Your task to perform on an android device: Open Wikipedia Image 0: 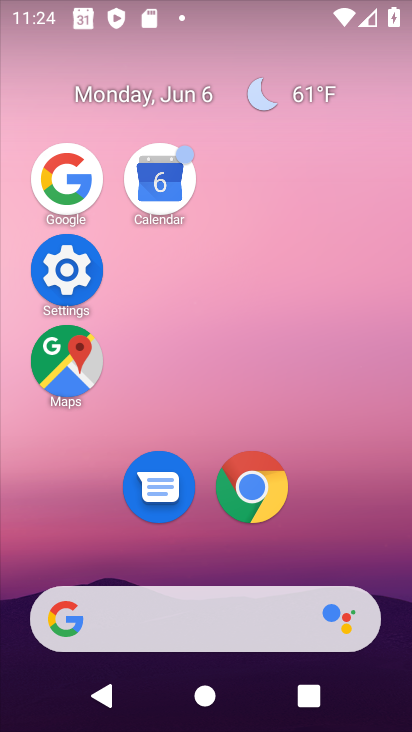
Step 0: click (254, 489)
Your task to perform on an android device: Open Wikipedia Image 1: 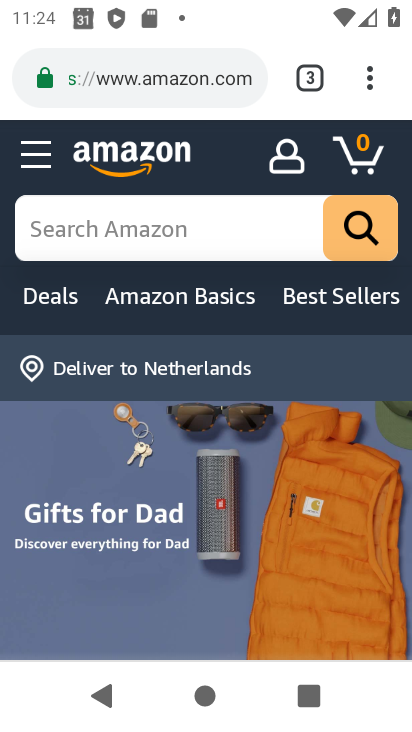
Step 1: click (323, 76)
Your task to perform on an android device: Open Wikipedia Image 2: 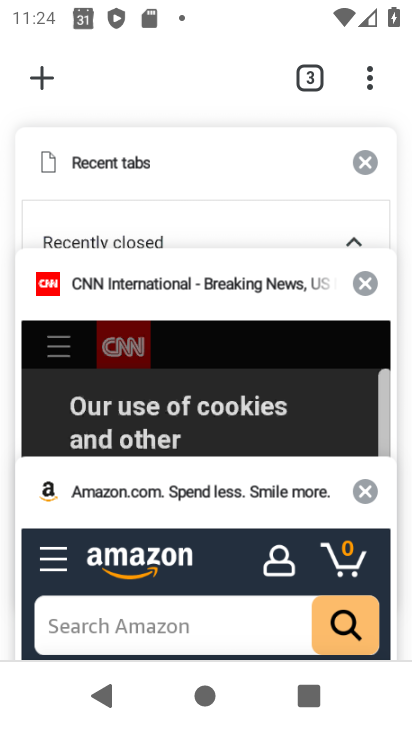
Step 2: click (48, 85)
Your task to perform on an android device: Open Wikipedia Image 3: 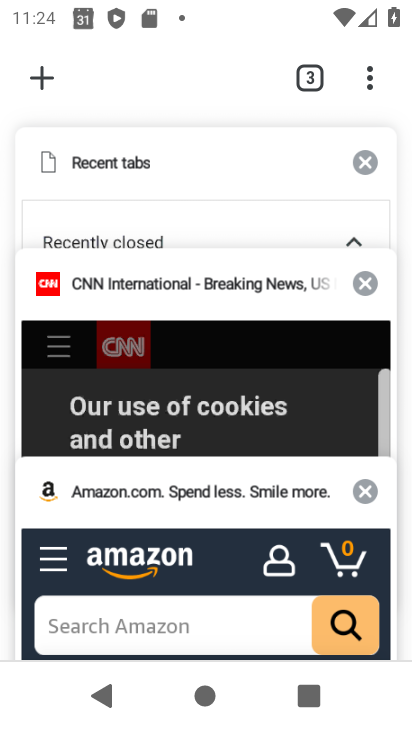
Step 3: click (38, 86)
Your task to perform on an android device: Open Wikipedia Image 4: 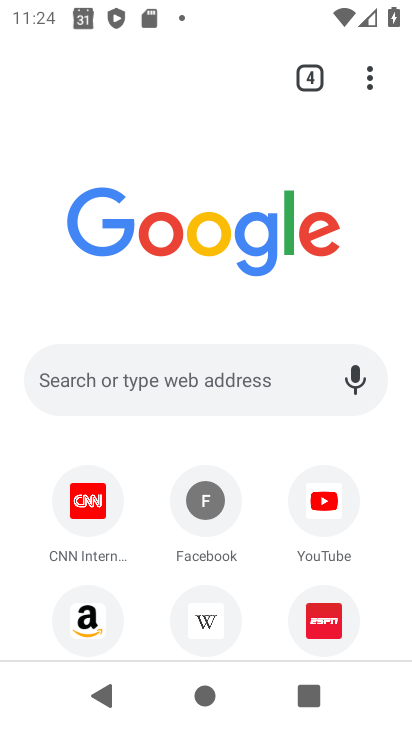
Step 4: click (197, 613)
Your task to perform on an android device: Open Wikipedia Image 5: 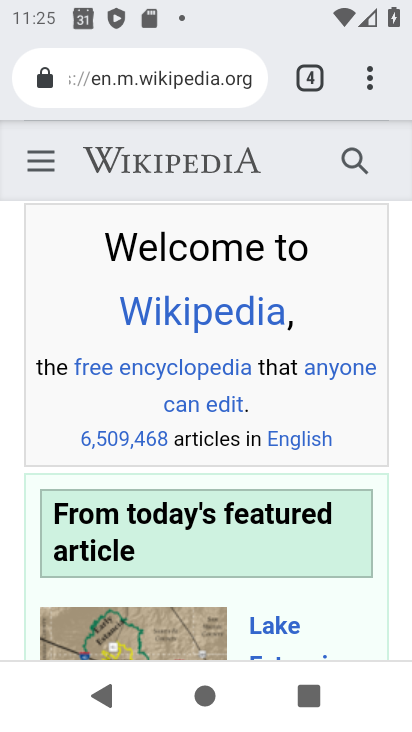
Step 5: task complete